Your task to perform on an android device: Open calendar and show me the fourth week of next month Image 0: 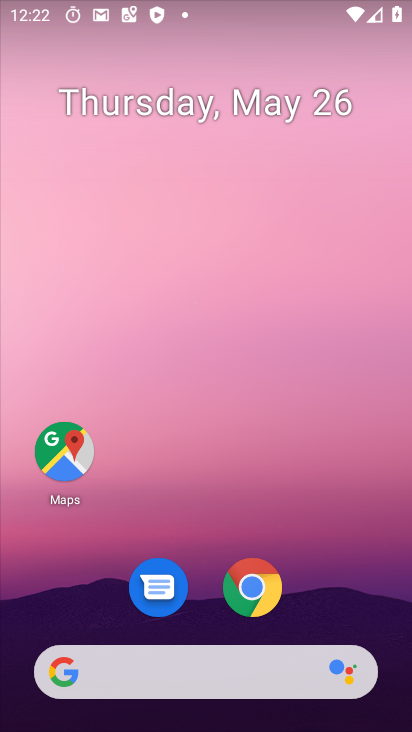
Step 0: drag from (282, 642) to (285, 60)
Your task to perform on an android device: Open calendar and show me the fourth week of next month Image 1: 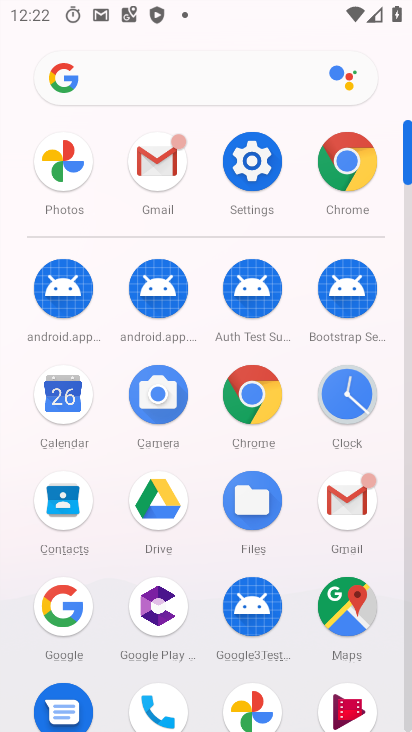
Step 1: click (50, 395)
Your task to perform on an android device: Open calendar and show me the fourth week of next month Image 2: 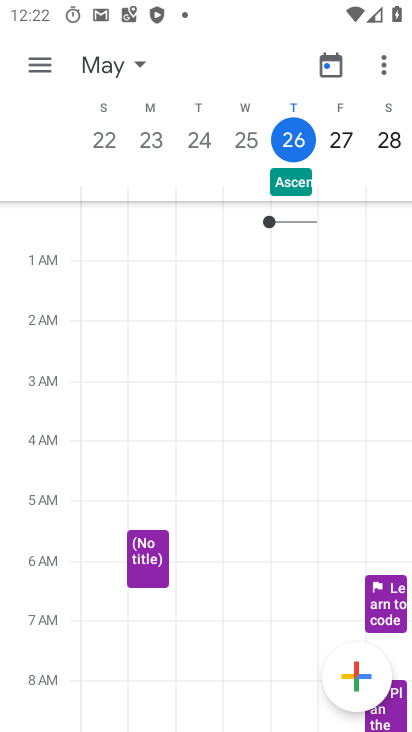
Step 2: click (55, 68)
Your task to perform on an android device: Open calendar and show me the fourth week of next month Image 3: 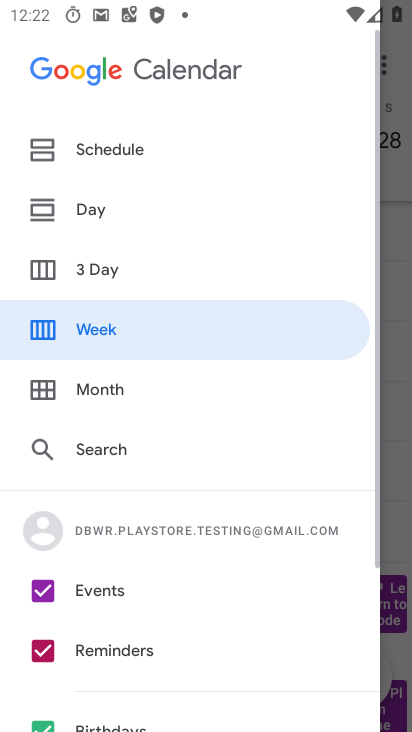
Step 3: click (113, 389)
Your task to perform on an android device: Open calendar and show me the fourth week of next month Image 4: 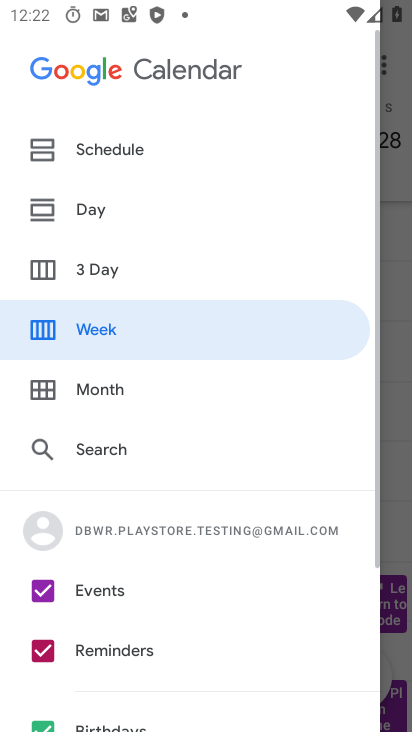
Step 4: click (115, 389)
Your task to perform on an android device: Open calendar and show me the fourth week of next month Image 5: 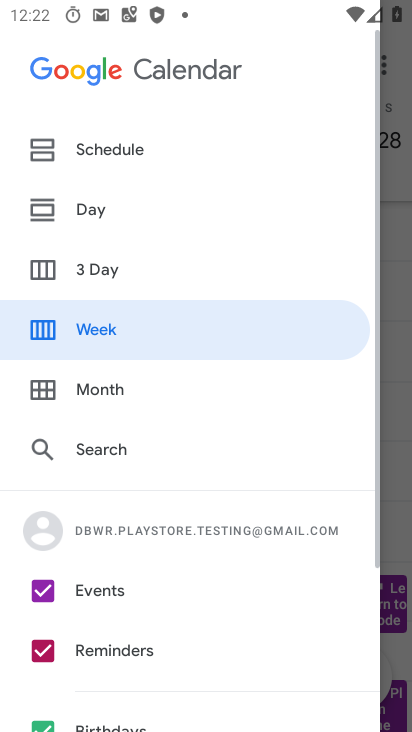
Step 5: click (114, 392)
Your task to perform on an android device: Open calendar and show me the fourth week of next month Image 6: 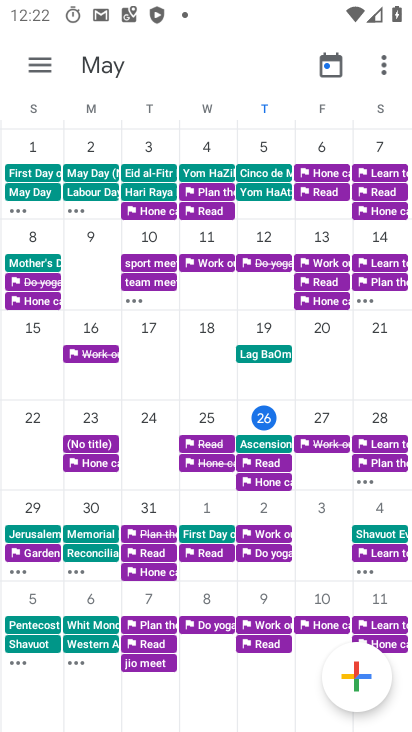
Step 6: click (90, 480)
Your task to perform on an android device: Open calendar and show me the fourth week of next month Image 7: 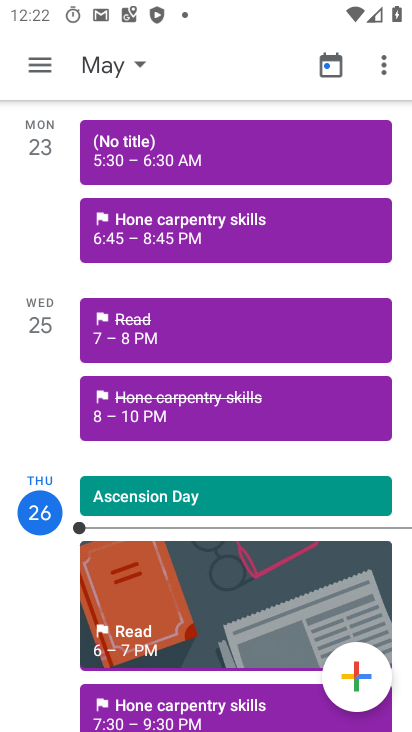
Step 7: click (37, 64)
Your task to perform on an android device: Open calendar and show me the fourth week of next month Image 8: 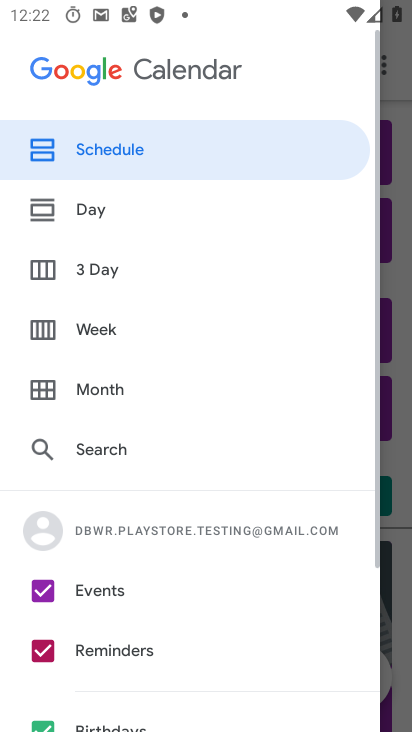
Step 8: click (118, 381)
Your task to perform on an android device: Open calendar and show me the fourth week of next month Image 9: 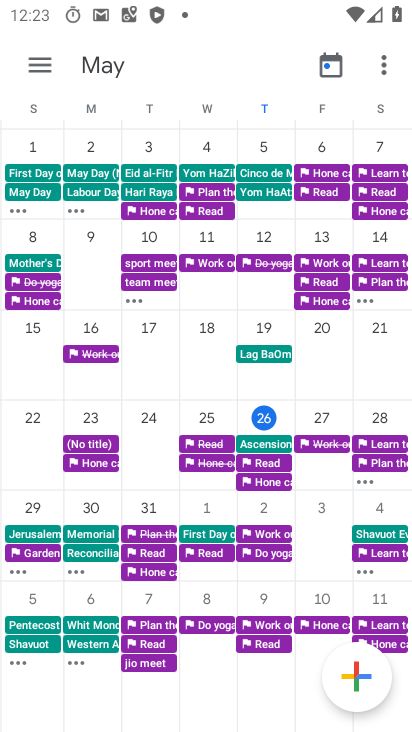
Step 9: drag from (380, 412) to (12, 292)
Your task to perform on an android device: Open calendar and show me the fourth week of next month Image 10: 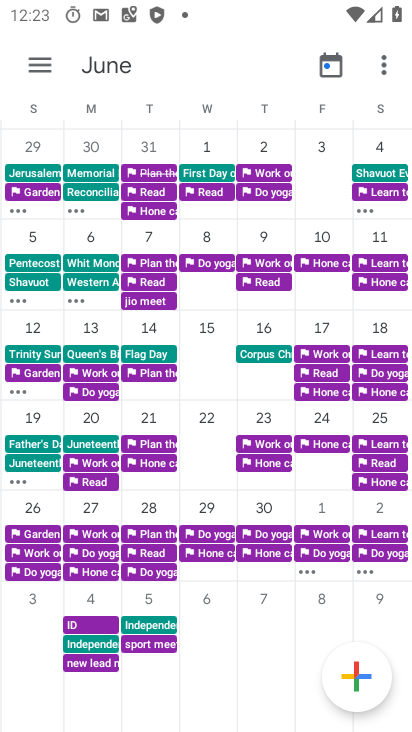
Step 10: click (96, 457)
Your task to perform on an android device: Open calendar and show me the fourth week of next month Image 11: 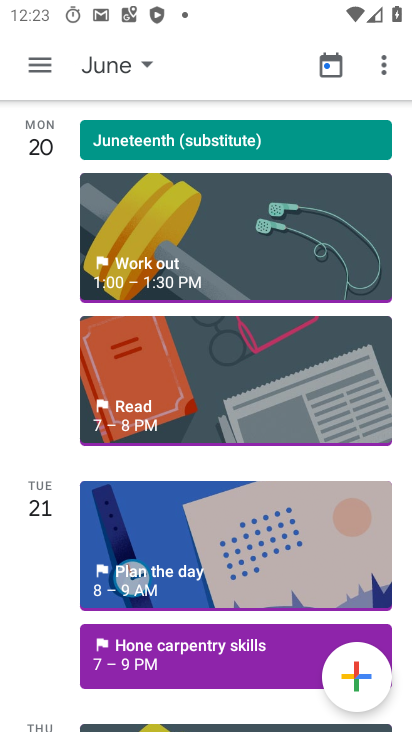
Step 11: task complete